Your task to perform on an android device: Find coffee shops on Maps Image 0: 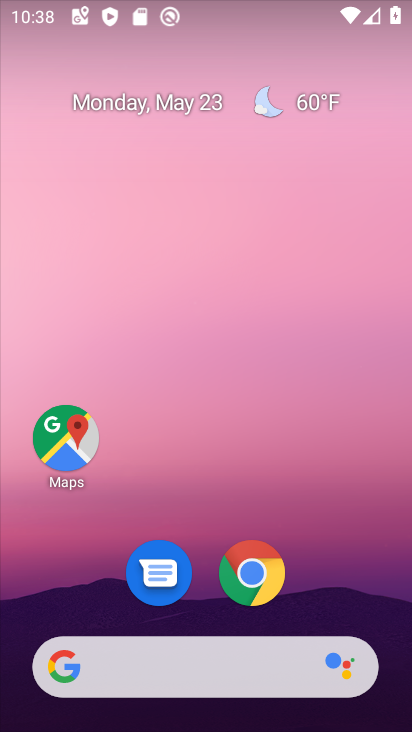
Step 0: drag from (291, 539) to (213, 51)
Your task to perform on an android device: Find coffee shops on Maps Image 1: 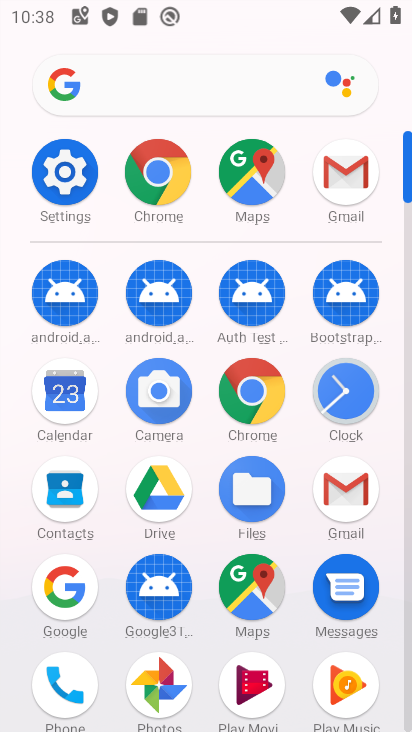
Step 1: click (249, 583)
Your task to perform on an android device: Find coffee shops on Maps Image 2: 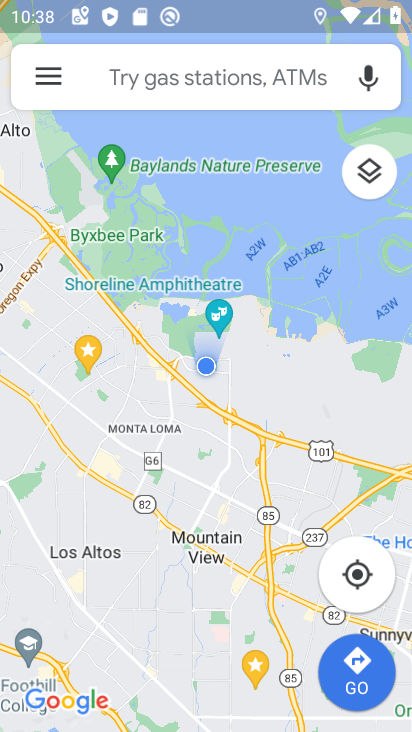
Step 2: click (184, 65)
Your task to perform on an android device: Find coffee shops on Maps Image 3: 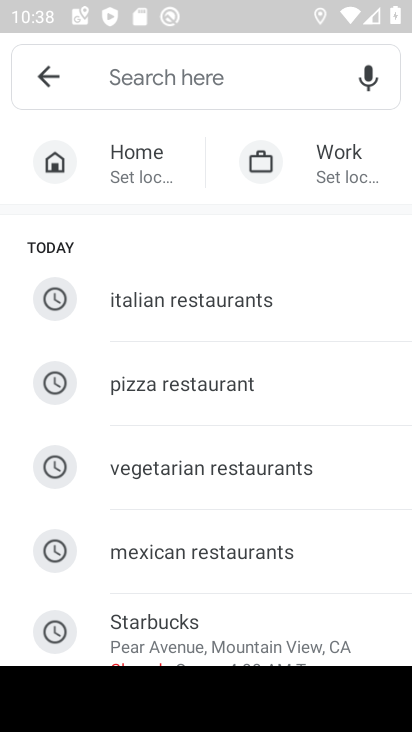
Step 3: type "coffee shops"
Your task to perform on an android device: Find coffee shops on Maps Image 4: 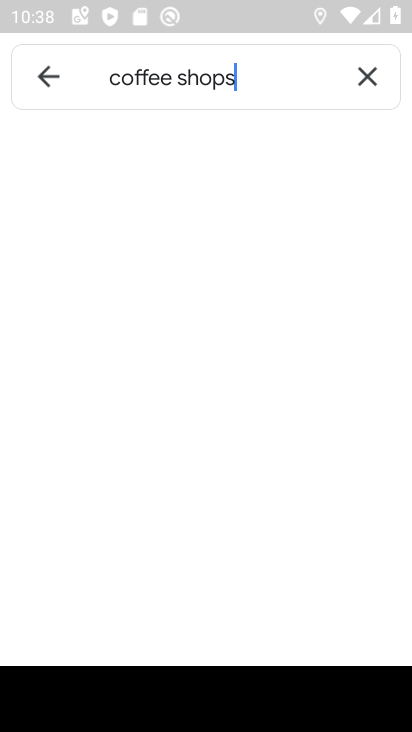
Step 4: type ""
Your task to perform on an android device: Find coffee shops on Maps Image 5: 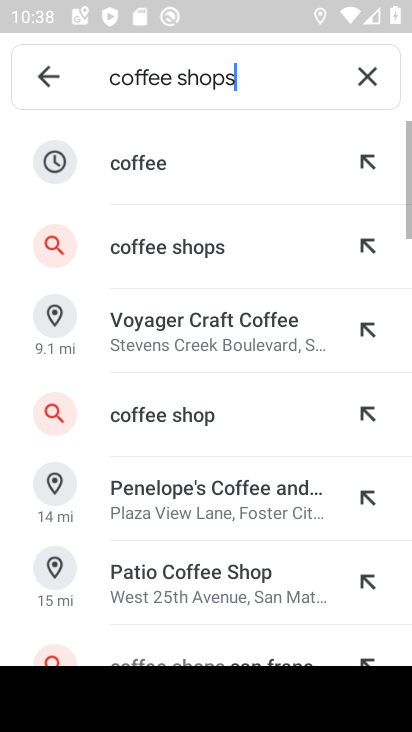
Step 5: click (143, 169)
Your task to perform on an android device: Find coffee shops on Maps Image 6: 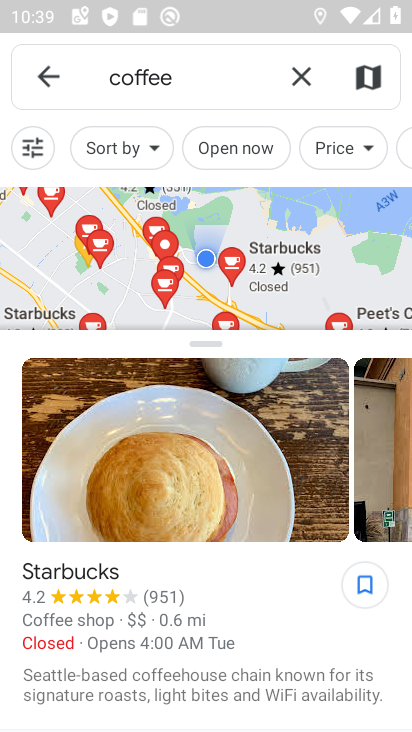
Step 6: task complete